Your task to perform on an android device: move an email to a new category in the gmail app Image 0: 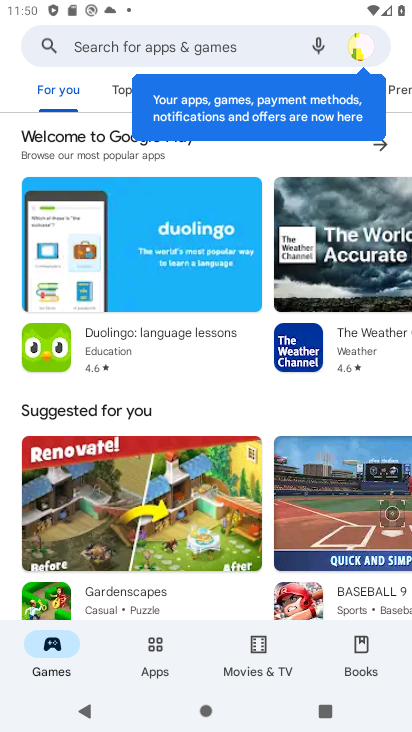
Step 0: press home button
Your task to perform on an android device: move an email to a new category in the gmail app Image 1: 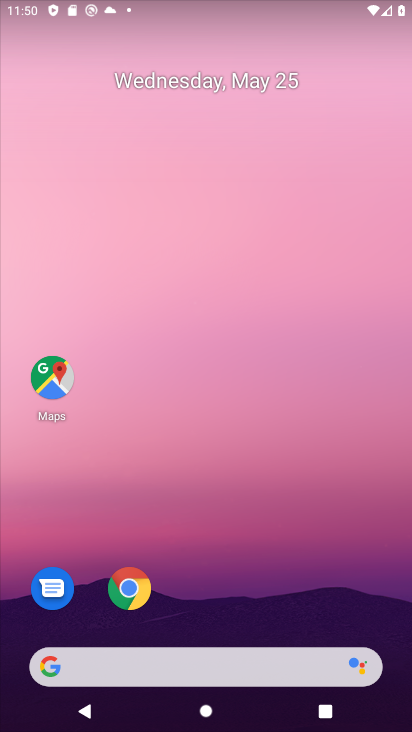
Step 1: drag from (187, 605) to (248, 190)
Your task to perform on an android device: move an email to a new category in the gmail app Image 2: 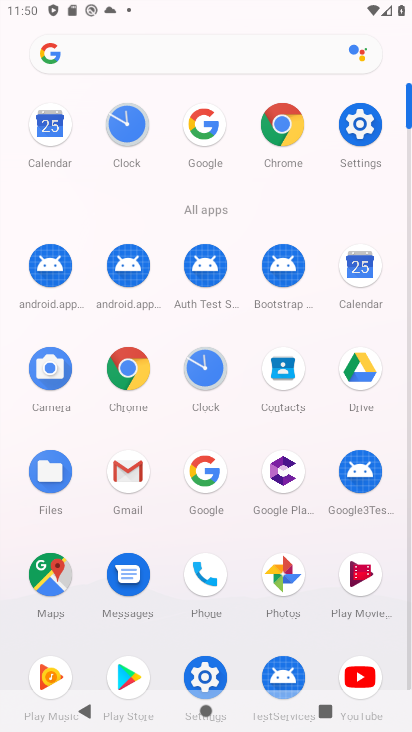
Step 2: click (120, 469)
Your task to perform on an android device: move an email to a new category in the gmail app Image 3: 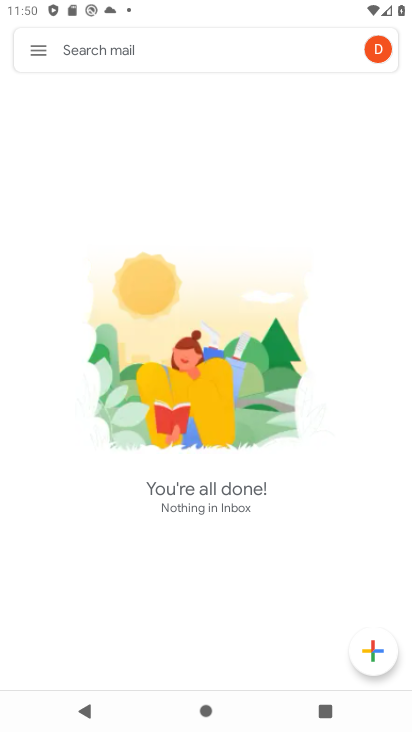
Step 3: click (47, 47)
Your task to perform on an android device: move an email to a new category in the gmail app Image 4: 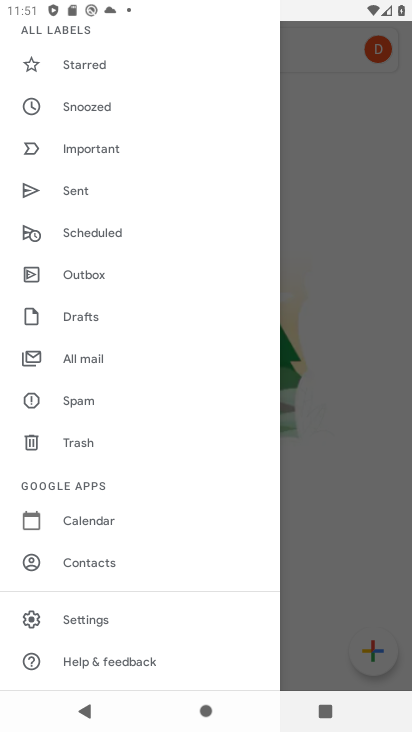
Step 4: click (100, 368)
Your task to perform on an android device: move an email to a new category in the gmail app Image 5: 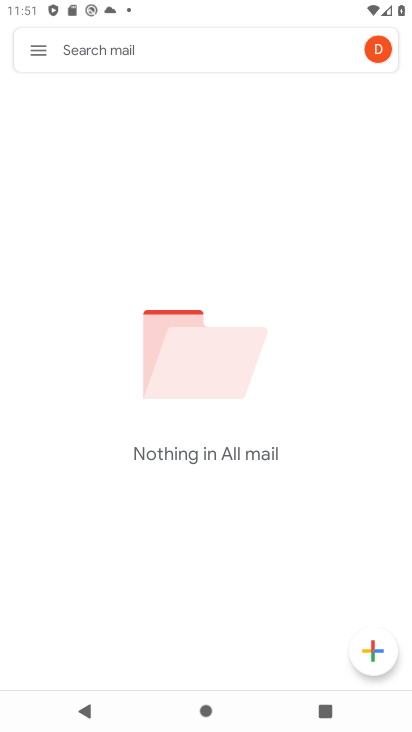
Step 5: task complete